Your task to perform on an android device: Open maps Image 0: 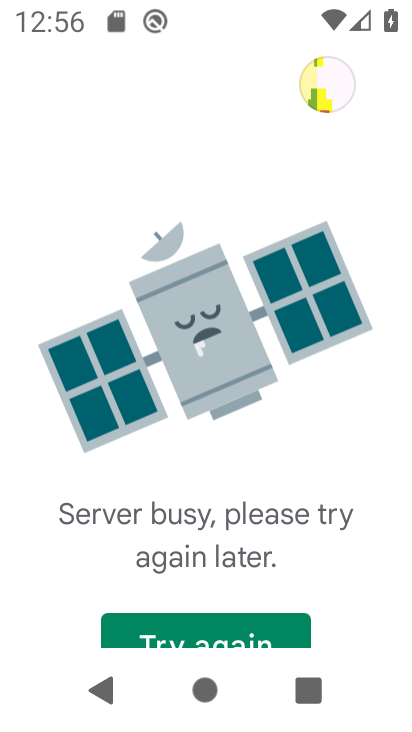
Step 0: press back button
Your task to perform on an android device: Open maps Image 1: 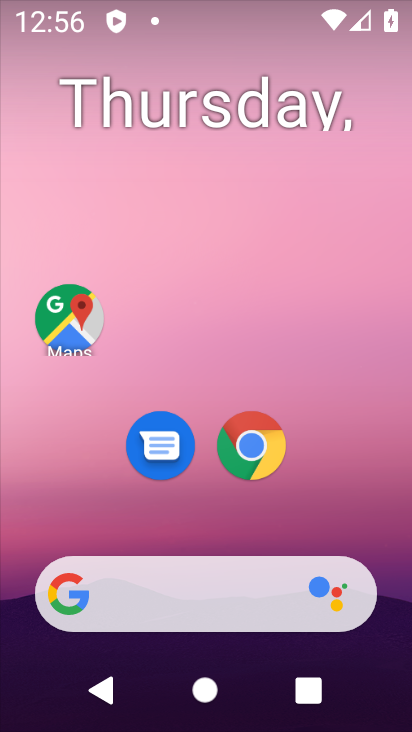
Step 1: click (80, 333)
Your task to perform on an android device: Open maps Image 2: 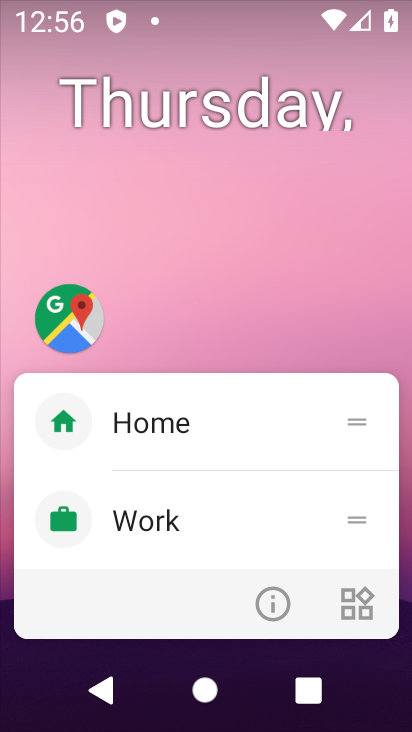
Step 2: click (77, 331)
Your task to perform on an android device: Open maps Image 3: 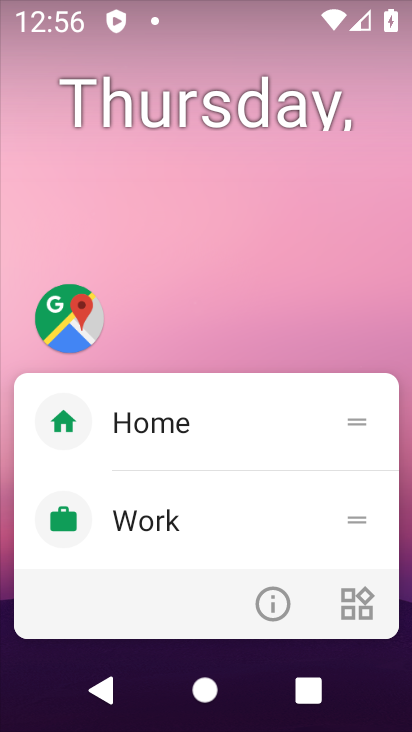
Step 3: click (77, 331)
Your task to perform on an android device: Open maps Image 4: 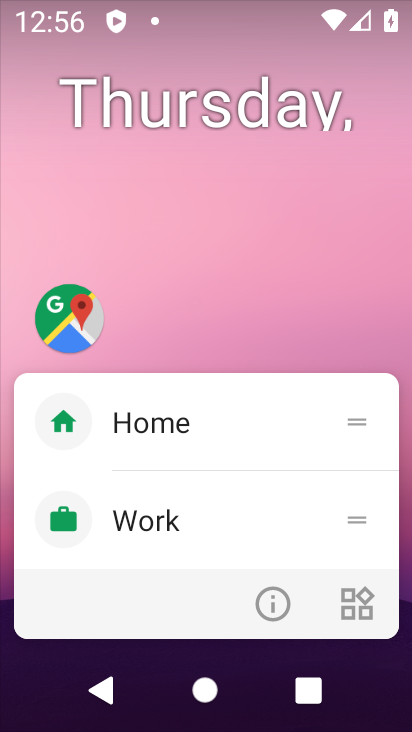
Step 4: click (73, 324)
Your task to perform on an android device: Open maps Image 5: 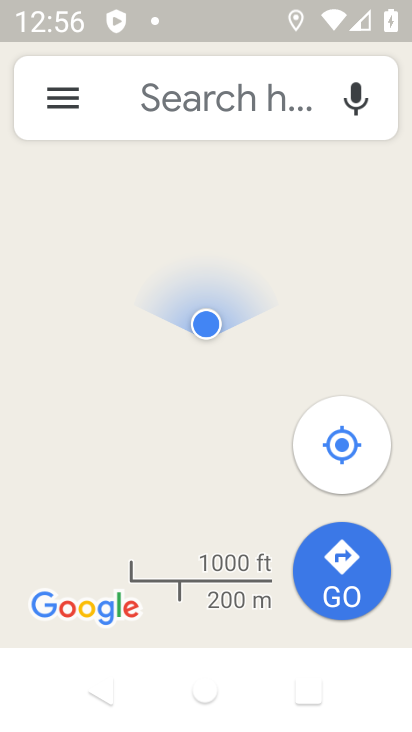
Step 5: task complete